Your task to perform on an android device: Do I have any events tomorrow? Image 0: 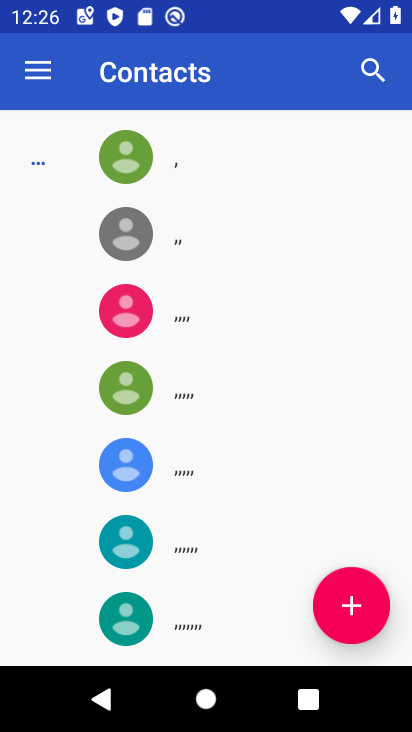
Step 0: press home button
Your task to perform on an android device: Do I have any events tomorrow? Image 1: 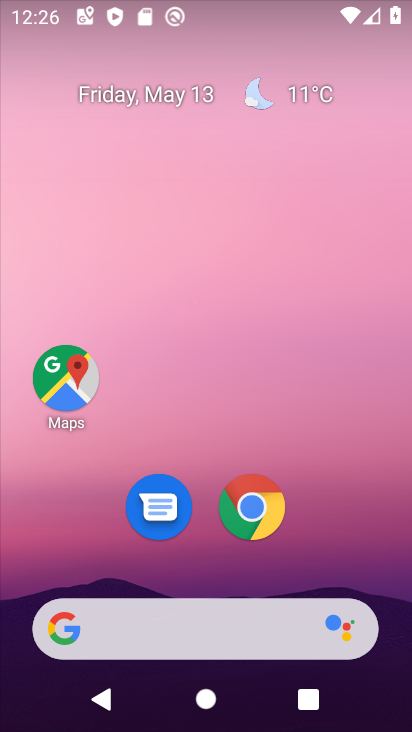
Step 1: drag from (218, 582) to (206, 6)
Your task to perform on an android device: Do I have any events tomorrow? Image 2: 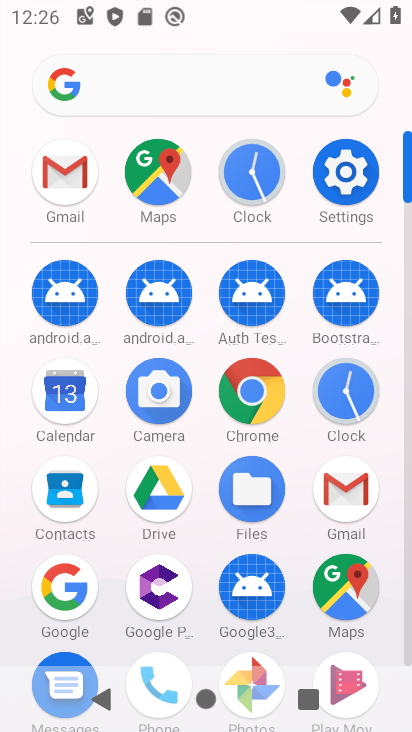
Step 2: click (70, 406)
Your task to perform on an android device: Do I have any events tomorrow? Image 3: 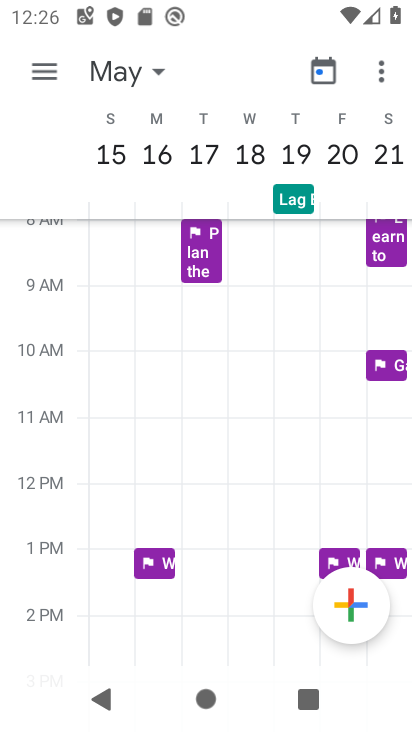
Step 3: click (316, 64)
Your task to perform on an android device: Do I have any events tomorrow? Image 4: 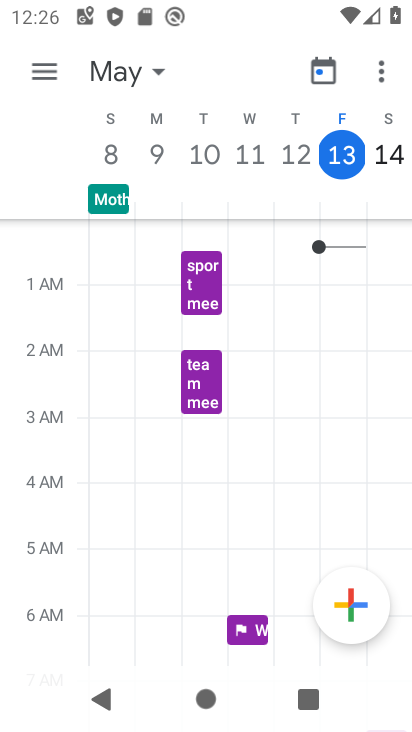
Step 4: click (383, 162)
Your task to perform on an android device: Do I have any events tomorrow? Image 5: 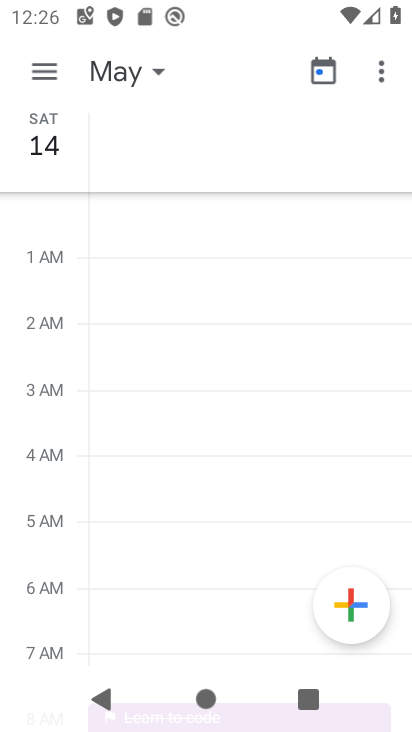
Step 5: task complete